Your task to perform on an android device: Check the settings for the Spotify app Image 0: 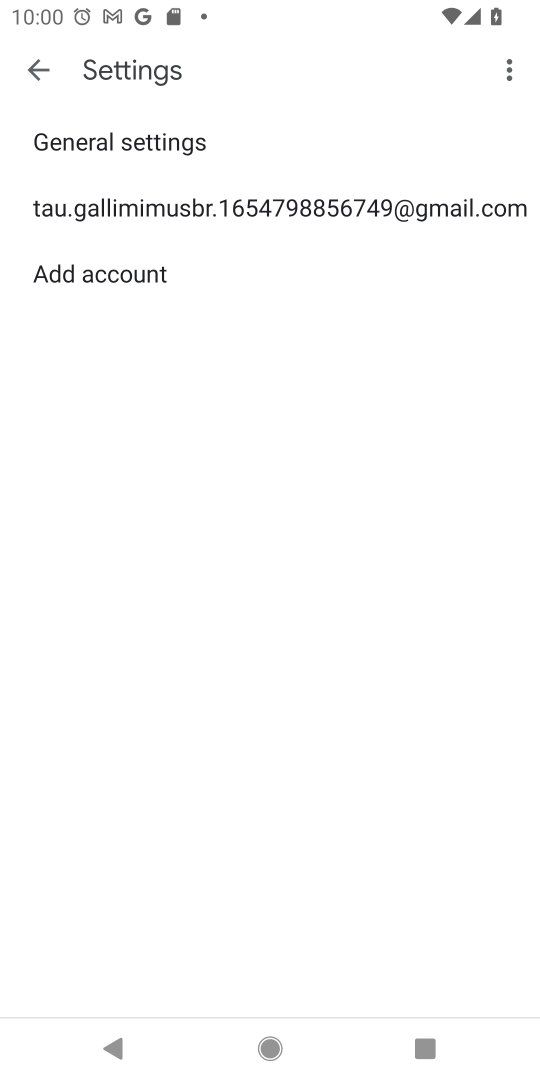
Step 0: press home button
Your task to perform on an android device: Check the settings for the Spotify app Image 1: 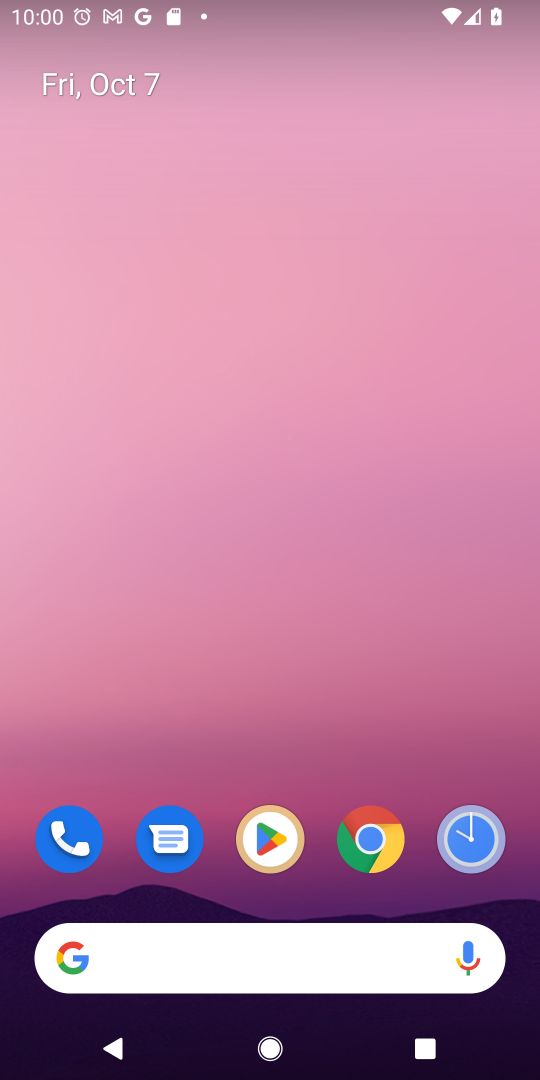
Step 1: click (379, 817)
Your task to perform on an android device: Check the settings for the Spotify app Image 2: 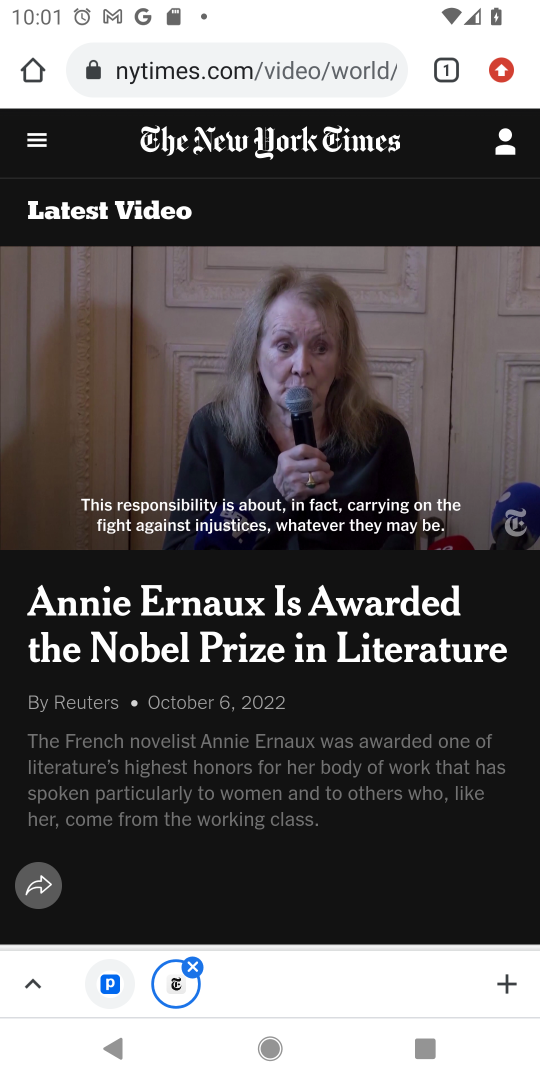
Step 2: press home button
Your task to perform on an android device: Check the settings for the Spotify app Image 3: 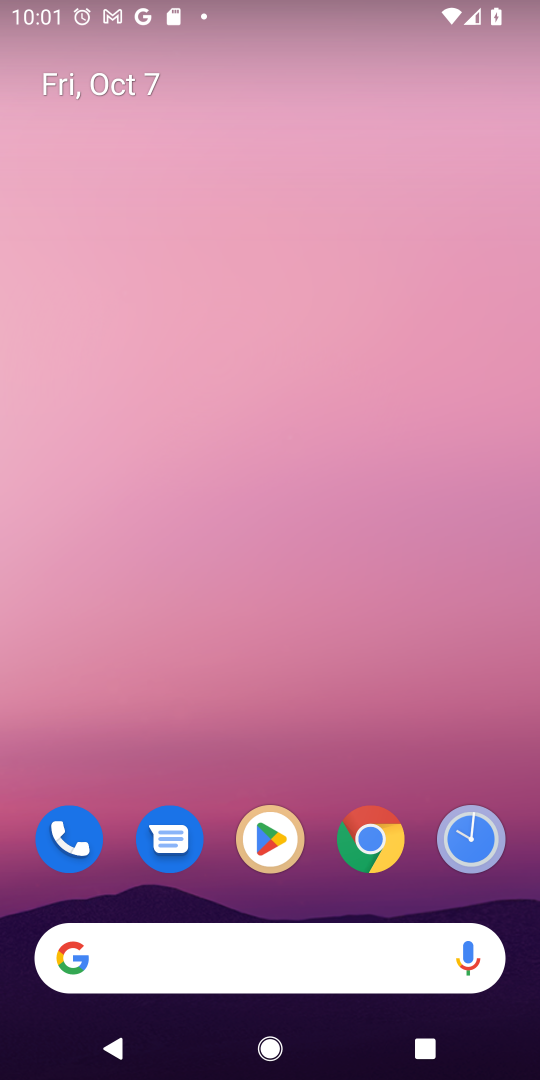
Step 3: click (377, 832)
Your task to perform on an android device: Check the settings for the Spotify app Image 4: 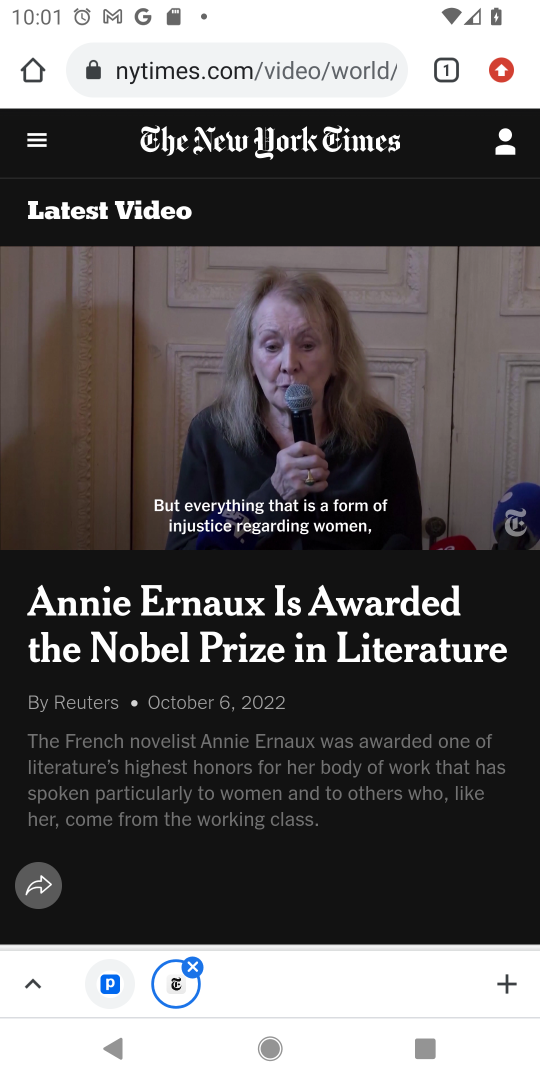
Step 4: press home button
Your task to perform on an android device: Check the settings for the Spotify app Image 5: 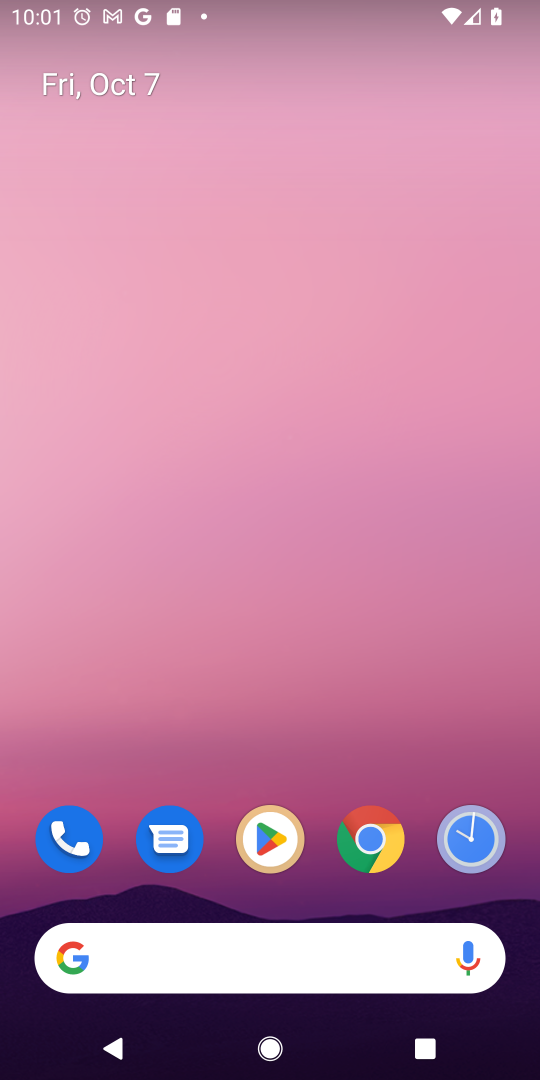
Step 5: click (385, 836)
Your task to perform on an android device: Check the settings for the Spotify app Image 6: 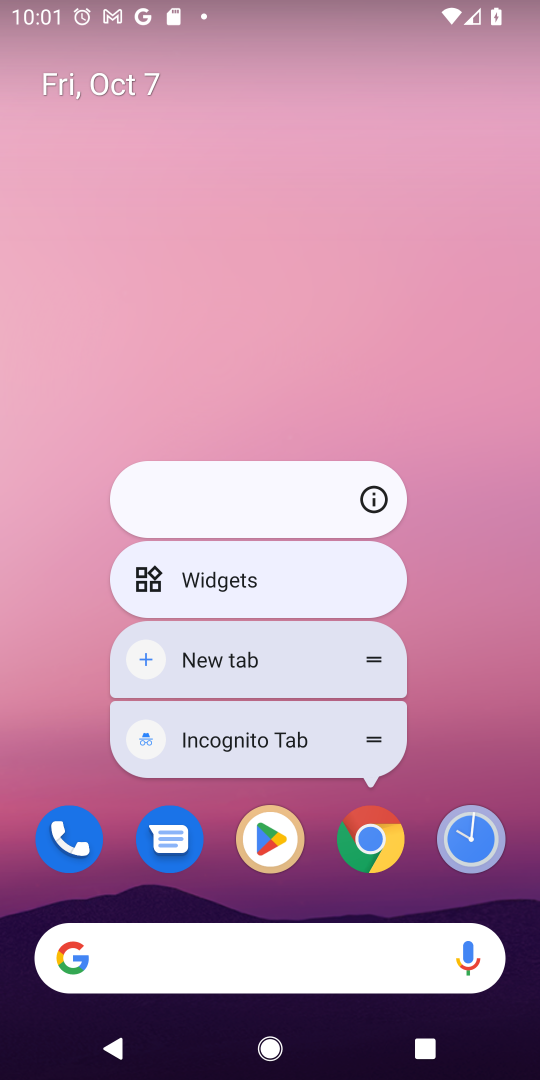
Step 6: press home button
Your task to perform on an android device: Check the settings for the Spotify app Image 7: 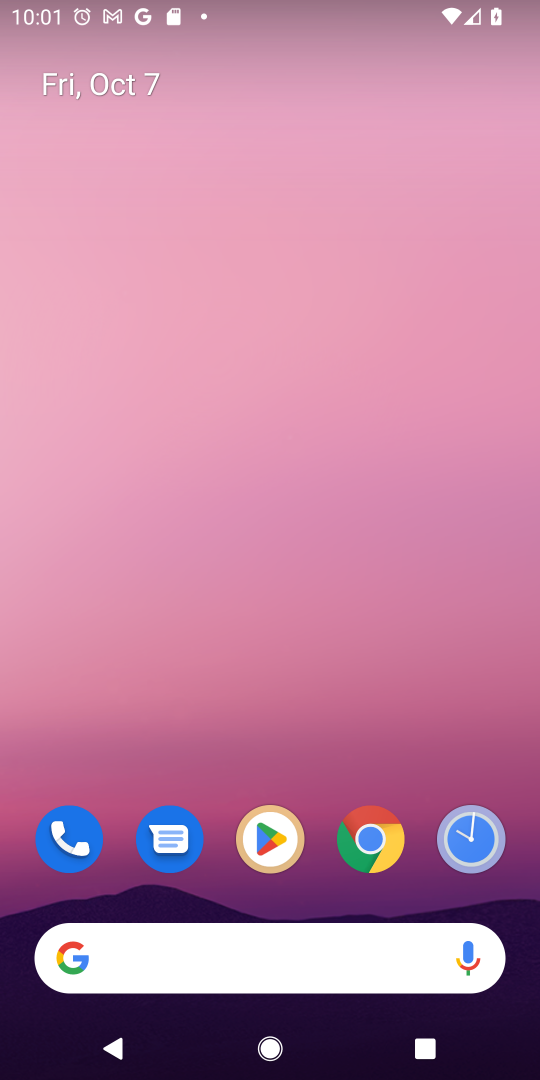
Step 7: click (379, 834)
Your task to perform on an android device: Check the settings for the Spotify app Image 8: 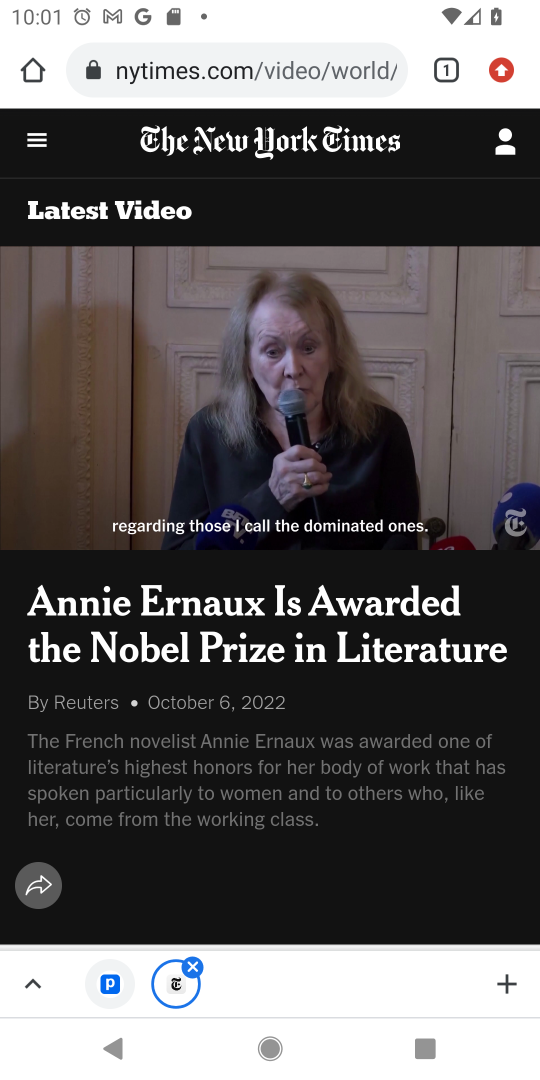
Step 8: click (279, 60)
Your task to perform on an android device: Check the settings for the Spotify app Image 9: 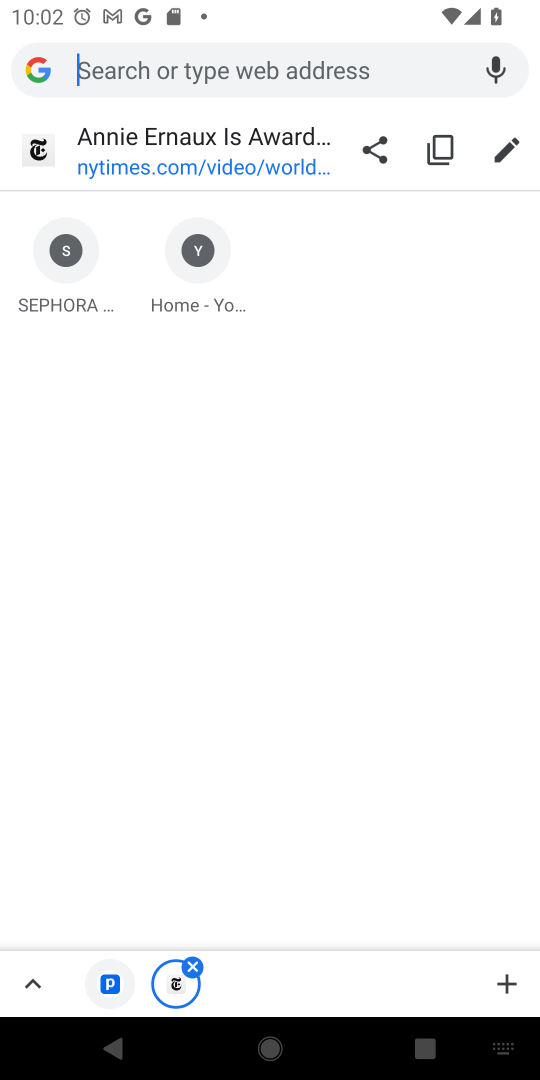
Step 9: type "spotify app"
Your task to perform on an android device: Check the settings for the Spotify app Image 10: 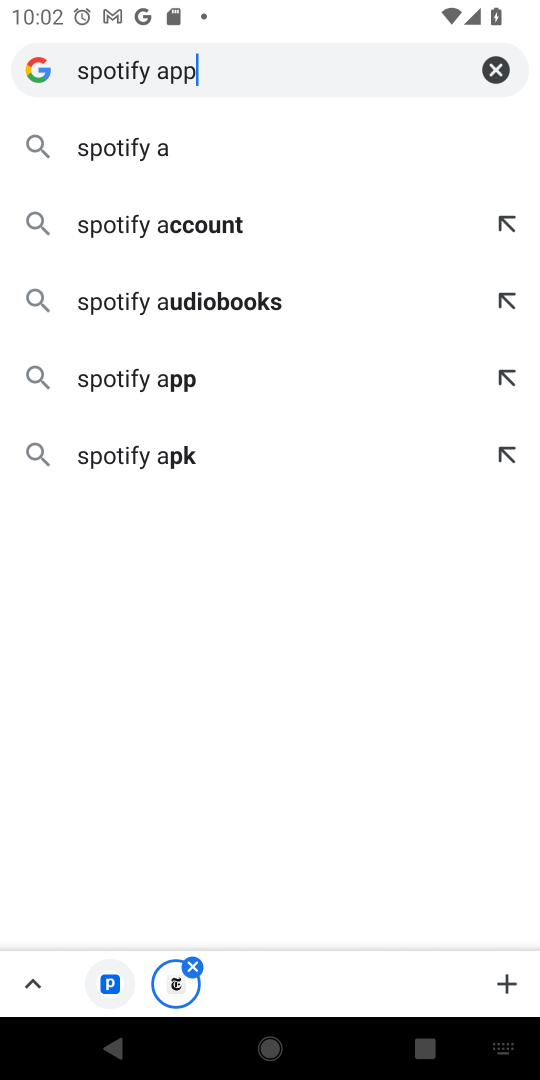
Step 10: type ""
Your task to perform on an android device: Check the settings for the Spotify app Image 11: 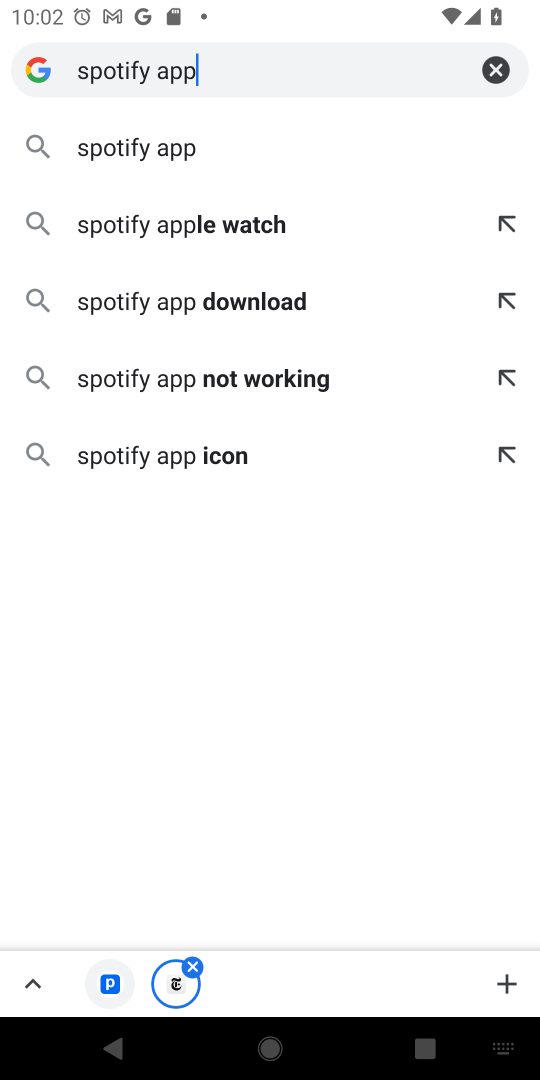
Step 11: click (183, 145)
Your task to perform on an android device: Check the settings for the Spotify app Image 12: 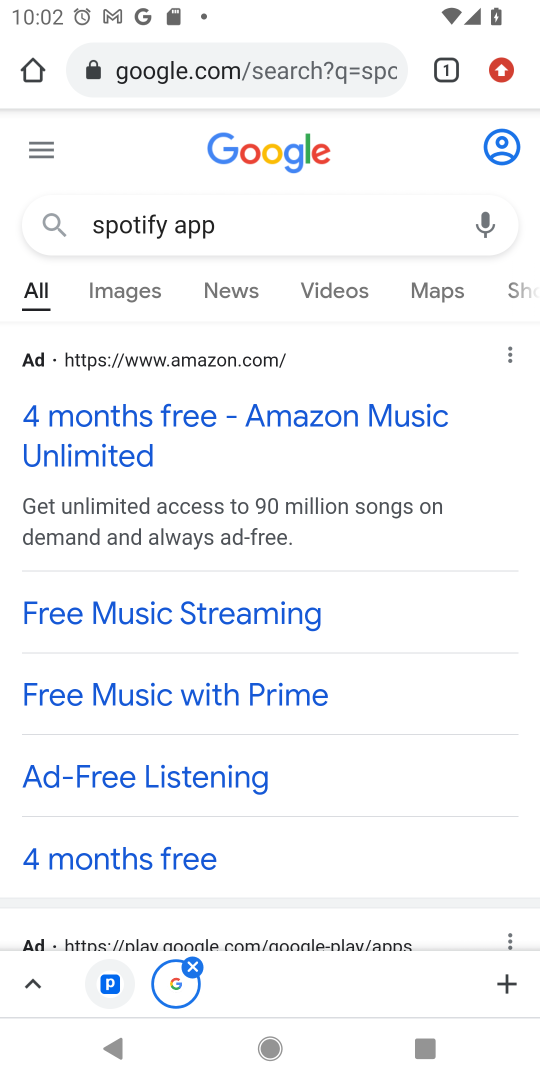
Step 12: drag from (254, 819) to (385, 326)
Your task to perform on an android device: Check the settings for the Spotify app Image 13: 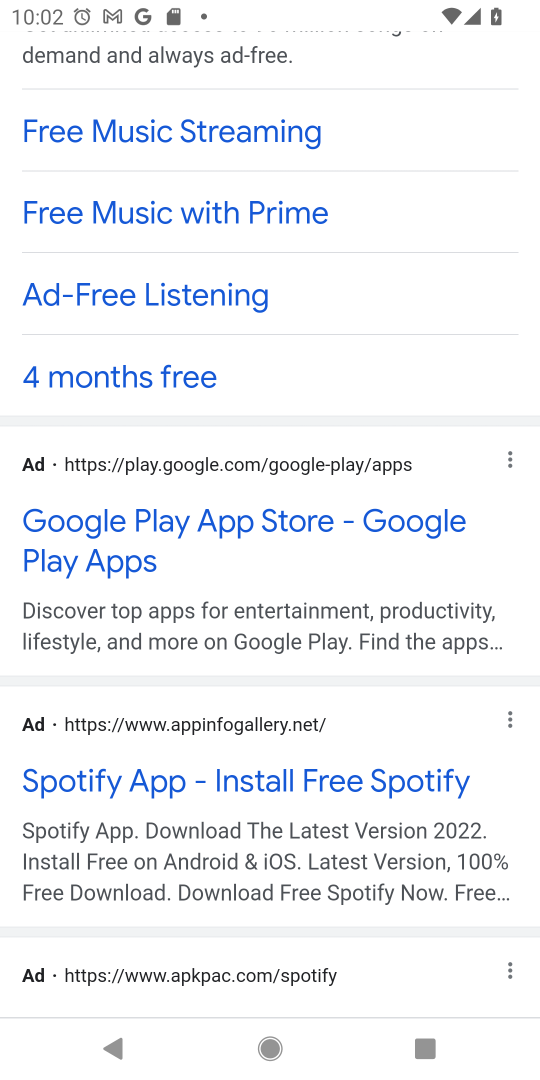
Step 13: click (85, 778)
Your task to perform on an android device: Check the settings for the Spotify app Image 14: 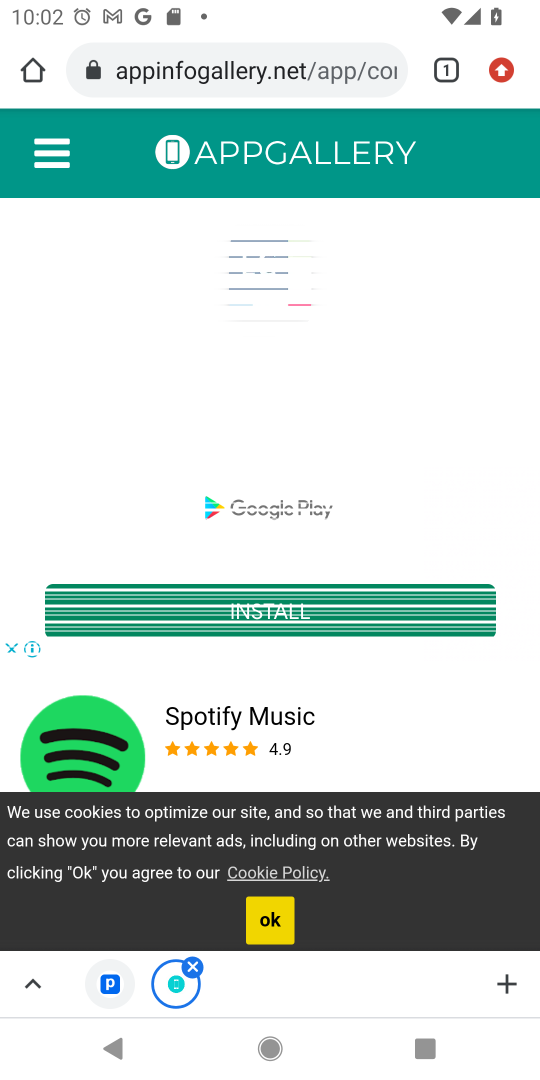
Step 14: click (269, 922)
Your task to perform on an android device: Check the settings for the Spotify app Image 15: 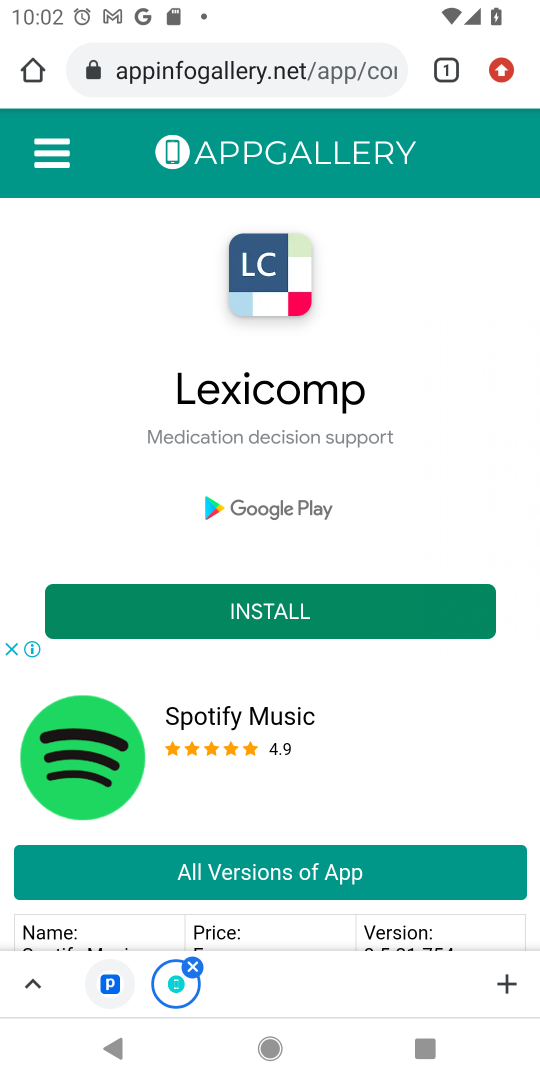
Step 15: click (68, 773)
Your task to perform on an android device: Check the settings for the Spotify app Image 16: 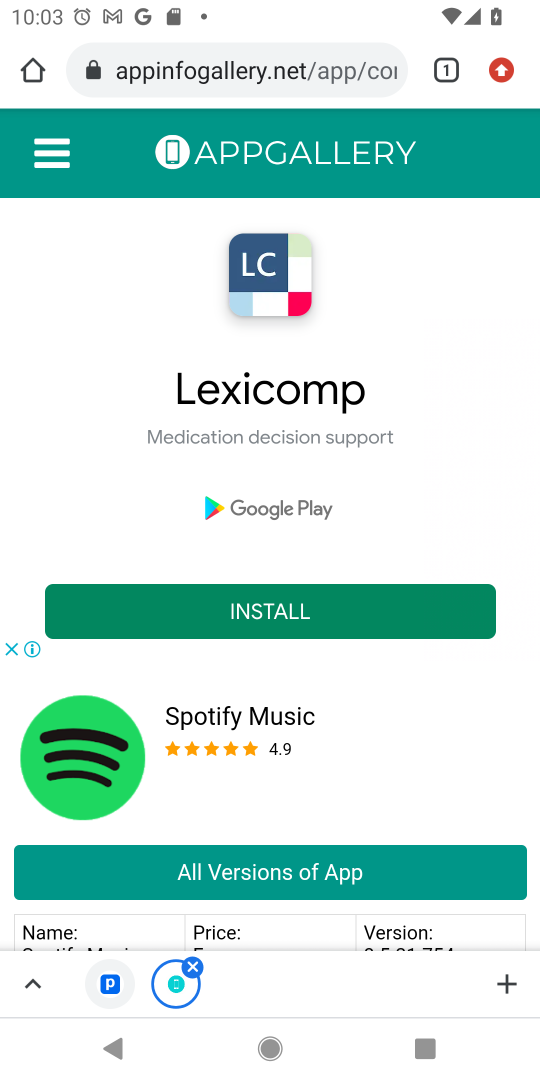
Step 16: drag from (246, 749) to (270, 443)
Your task to perform on an android device: Check the settings for the Spotify app Image 17: 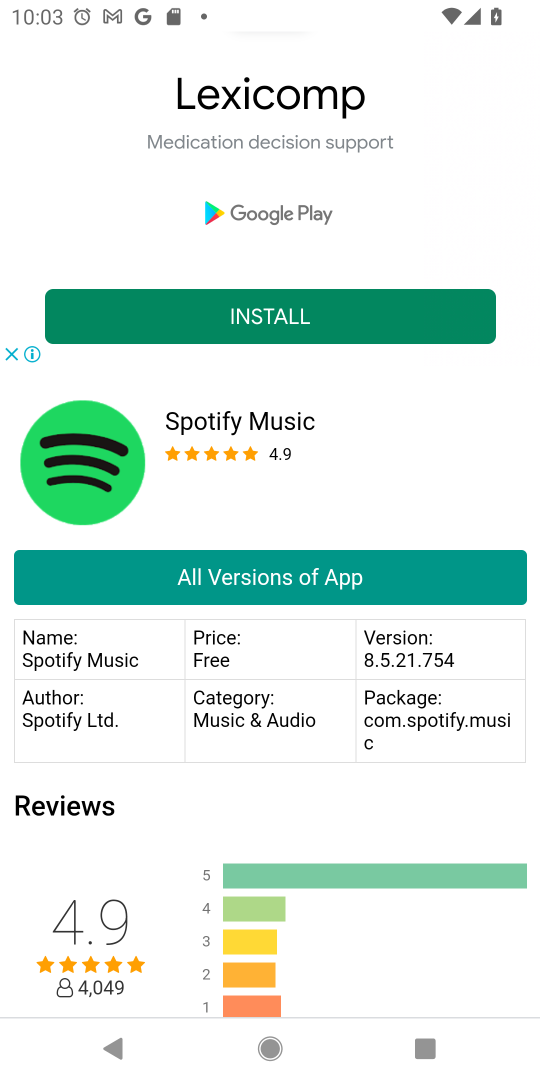
Step 17: drag from (118, 857) to (174, 563)
Your task to perform on an android device: Check the settings for the Spotify app Image 18: 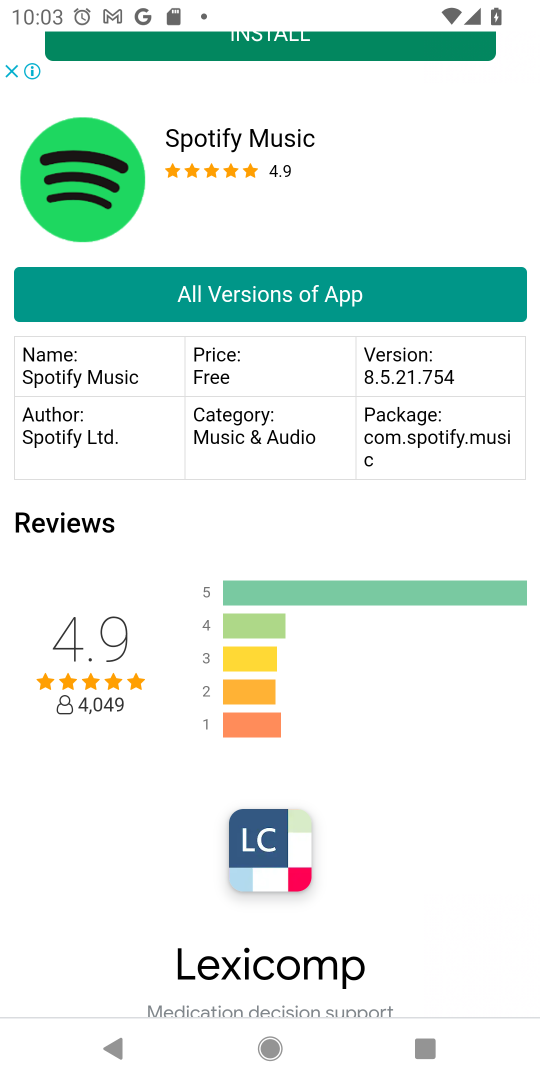
Step 18: drag from (97, 842) to (199, 576)
Your task to perform on an android device: Check the settings for the Spotify app Image 19: 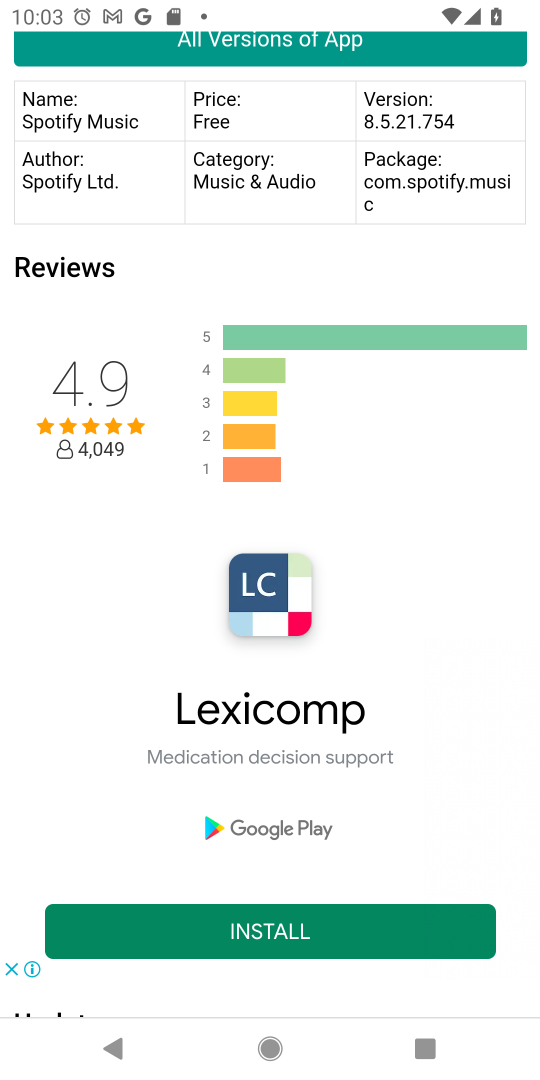
Step 19: drag from (409, 710) to (426, 456)
Your task to perform on an android device: Check the settings for the Spotify app Image 20: 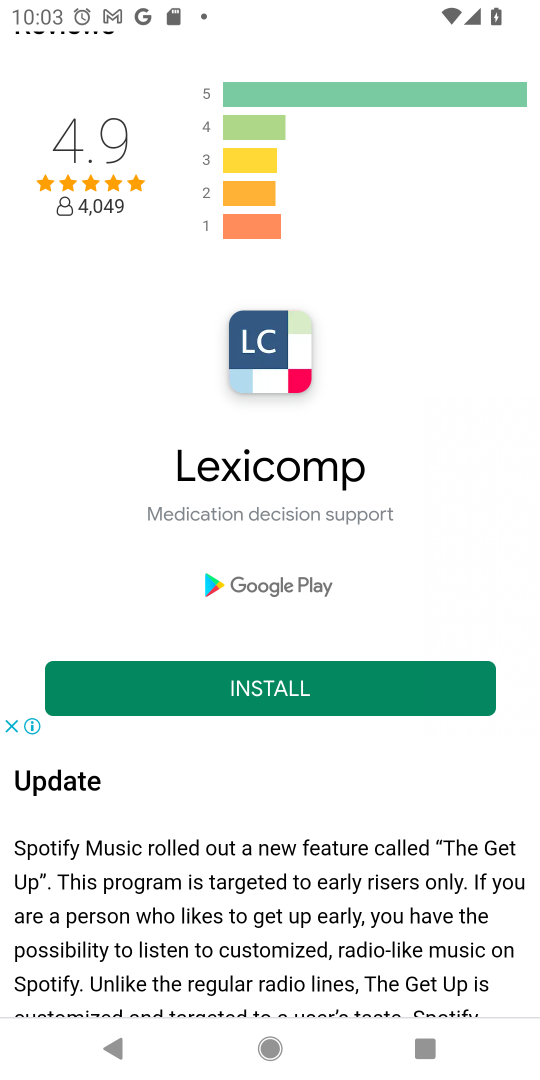
Step 20: drag from (224, 869) to (287, 489)
Your task to perform on an android device: Check the settings for the Spotify app Image 21: 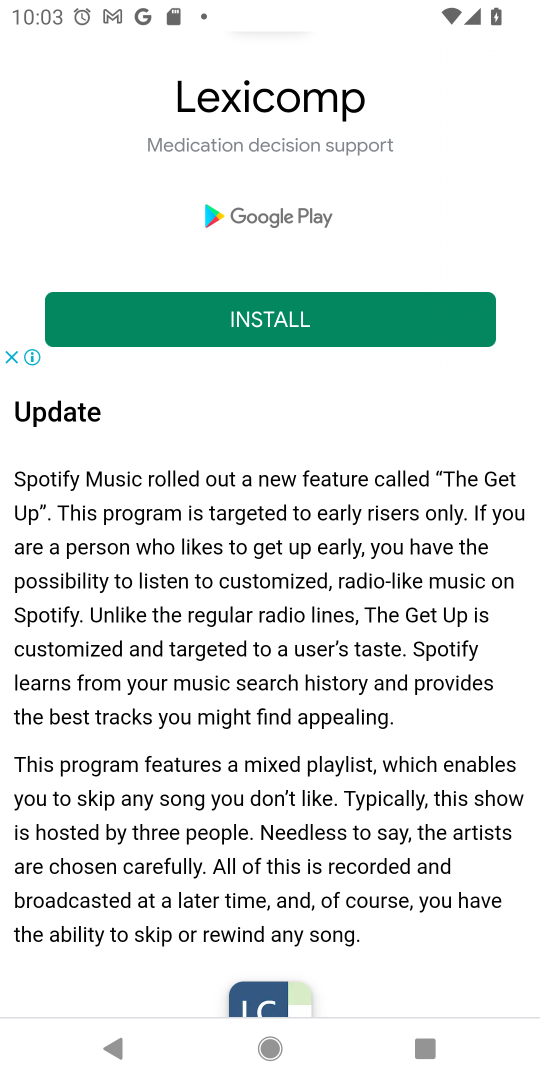
Step 21: drag from (269, 866) to (305, 540)
Your task to perform on an android device: Check the settings for the Spotify app Image 22: 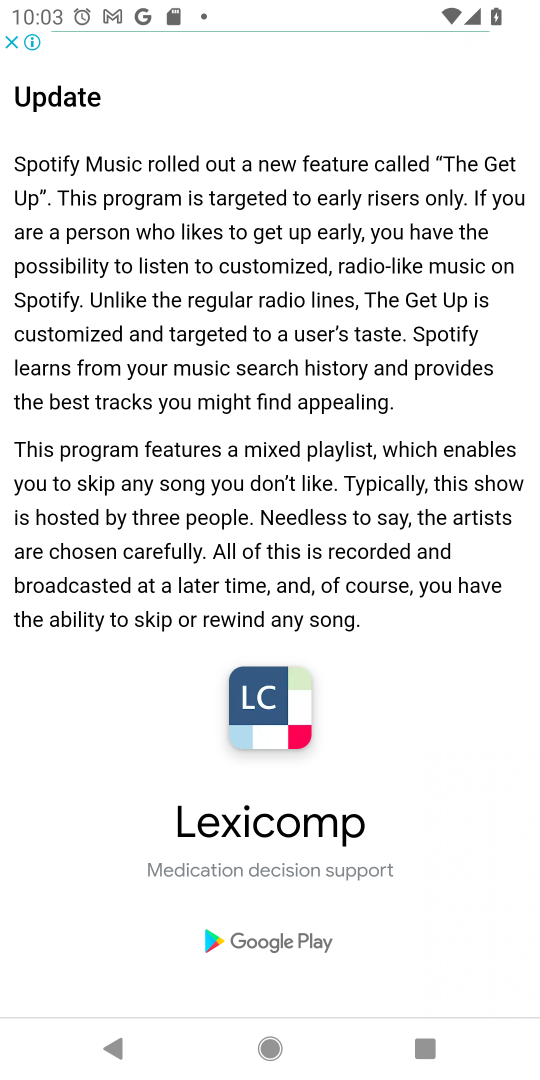
Step 22: drag from (329, 340) to (415, 969)
Your task to perform on an android device: Check the settings for the Spotify app Image 23: 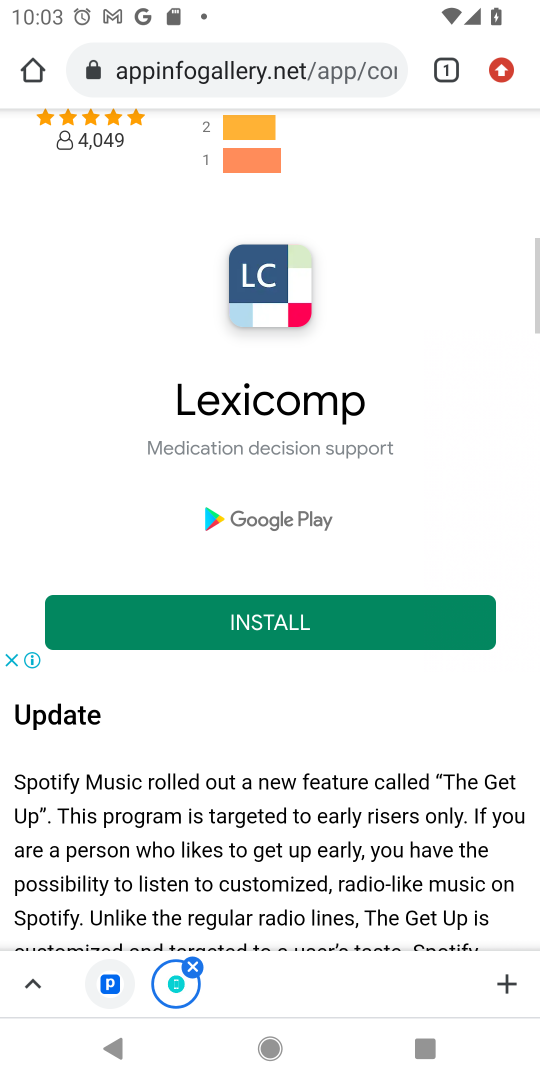
Step 23: drag from (314, 423) to (285, 1077)
Your task to perform on an android device: Check the settings for the Spotify app Image 24: 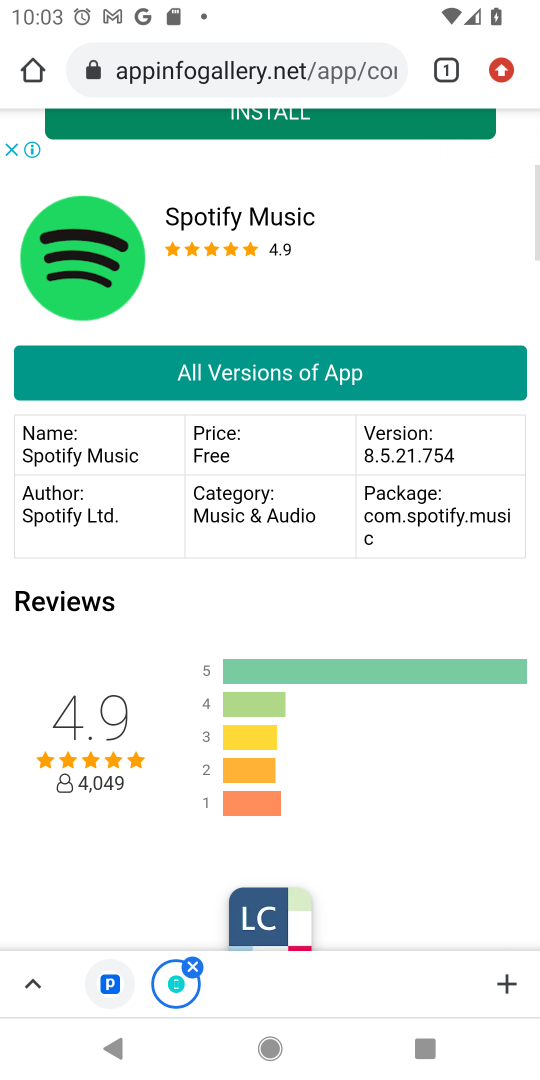
Step 24: drag from (196, 367) to (162, 844)
Your task to perform on an android device: Check the settings for the Spotify app Image 25: 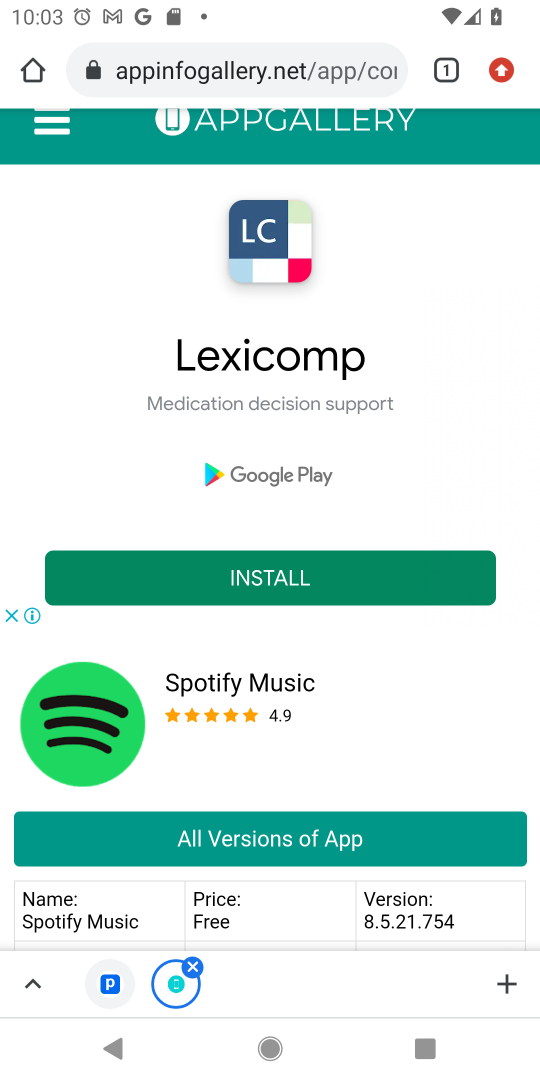
Step 25: click (109, 722)
Your task to perform on an android device: Check the settings for the Spotify app Image 26: 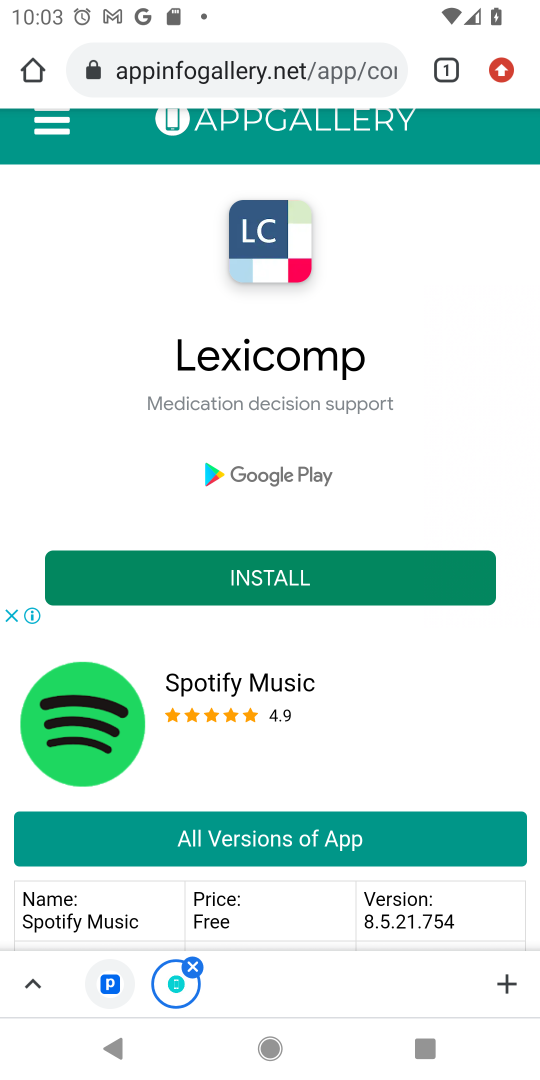
Step 26: click (95, 714)
Your task to perform on an android device: Check the settings for the Spotify app Image 27: 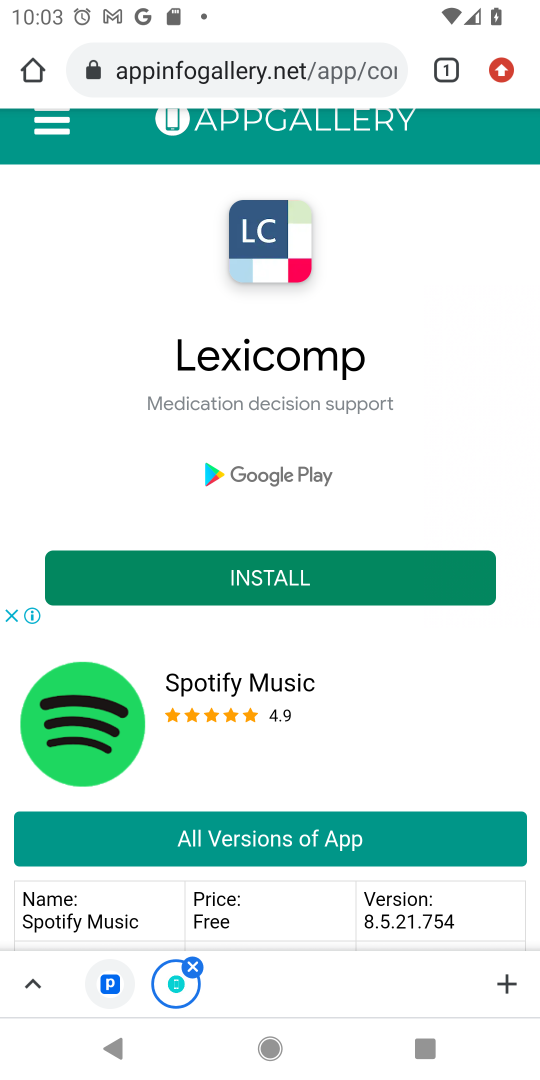
Step 27: click (297, 845)
Your task to perform on an android device: Check the settings for the Spotify app Image 28: 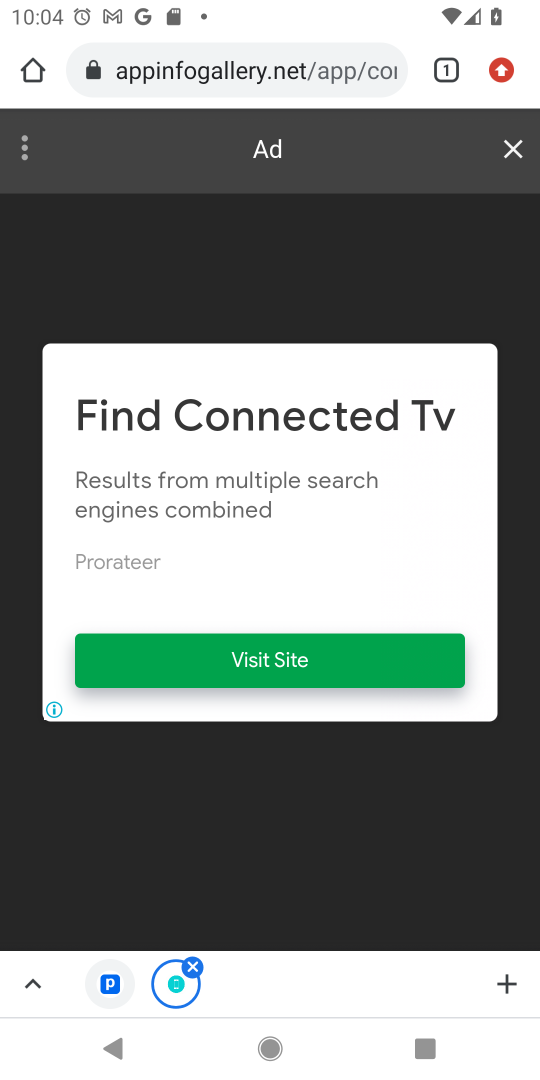
Step 28: click (287, 658)
Your task to perform on an android device: Check the settings for the Spotify app Image 29: 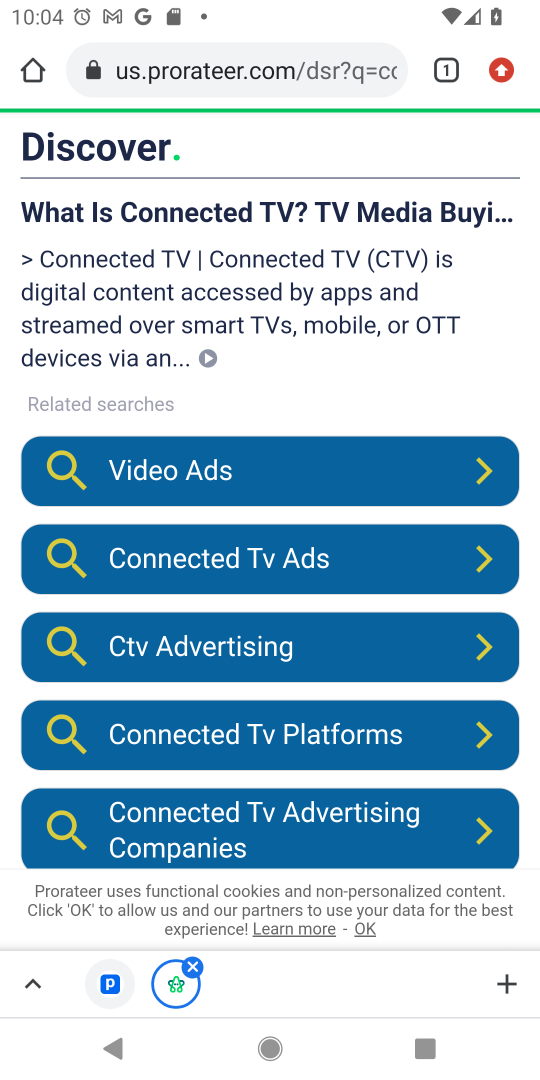
Step 29: click (313, 66)
Your task to perform on an android device: Check the settings for the Spotify app Image 30: 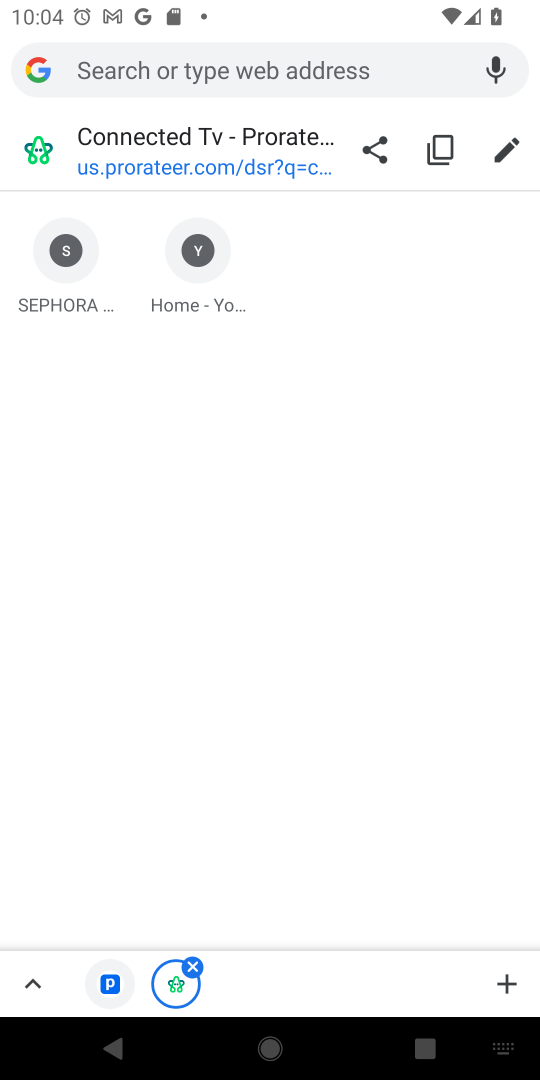
Step 30: type "spotify app"
Your task to perform on an android device: Check the settings for the Spotify app Image 31: 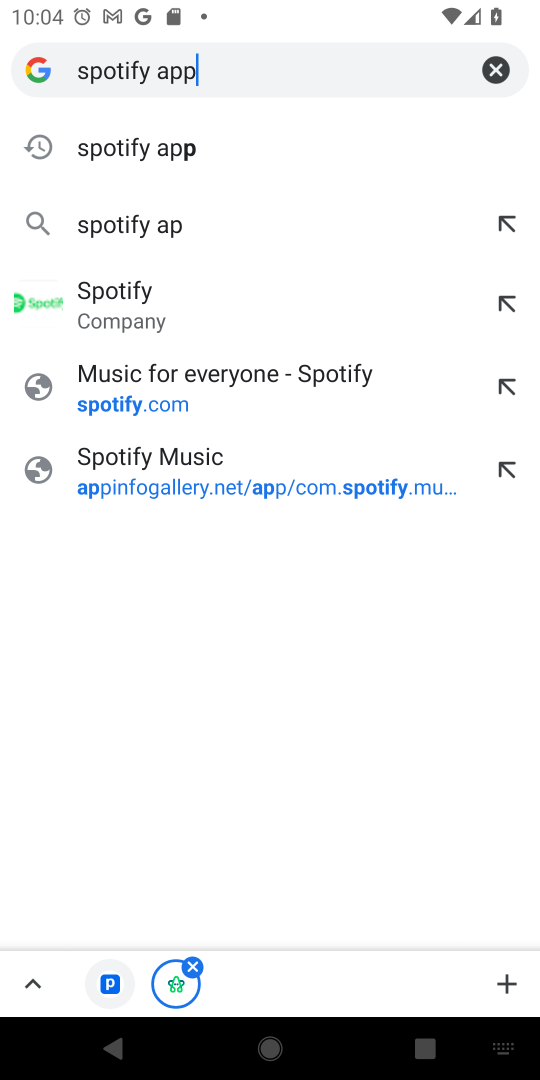
Step 31: type ""
Your task to perform on an android device: Check the settings for the Spotify app Image 32: 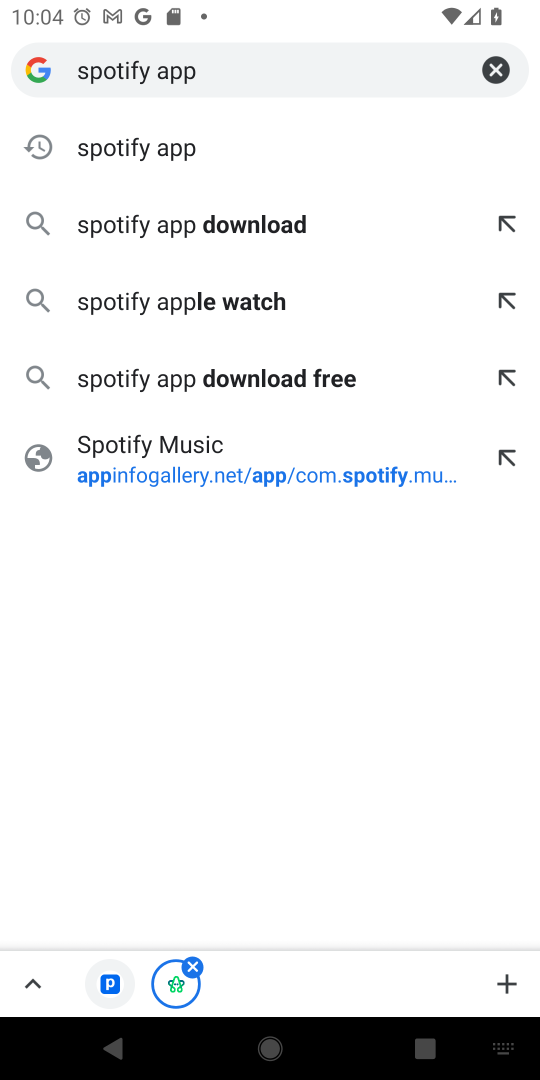
Step 32: click (242, 220)
Your task to perform on an android device: Check the settings for the Spotify app Image 33: 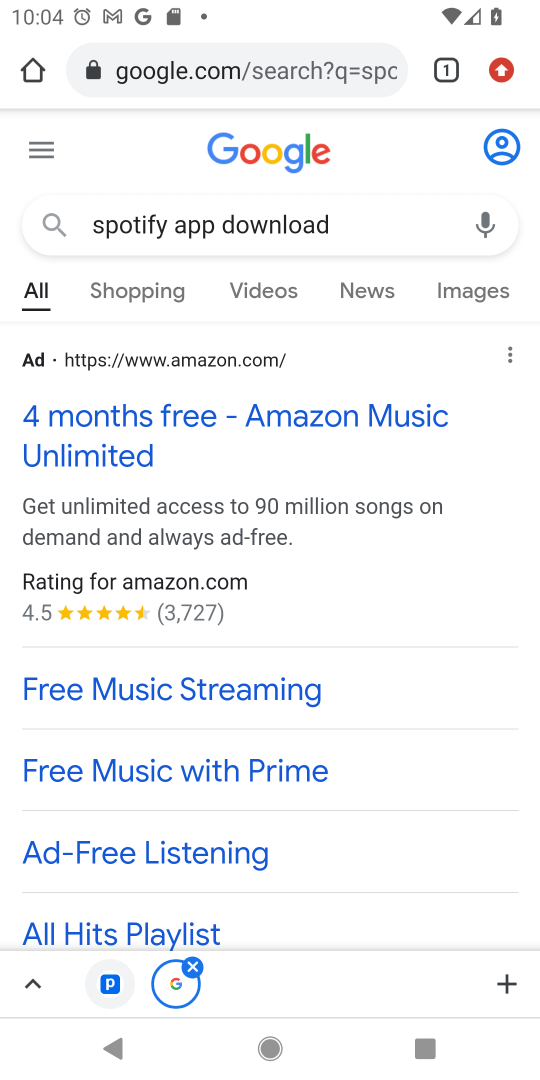
Step 33: drag from (189, 843) to (347, 471)
Your task to perform on an android device: Check the settings for the Spotify app Image 34: 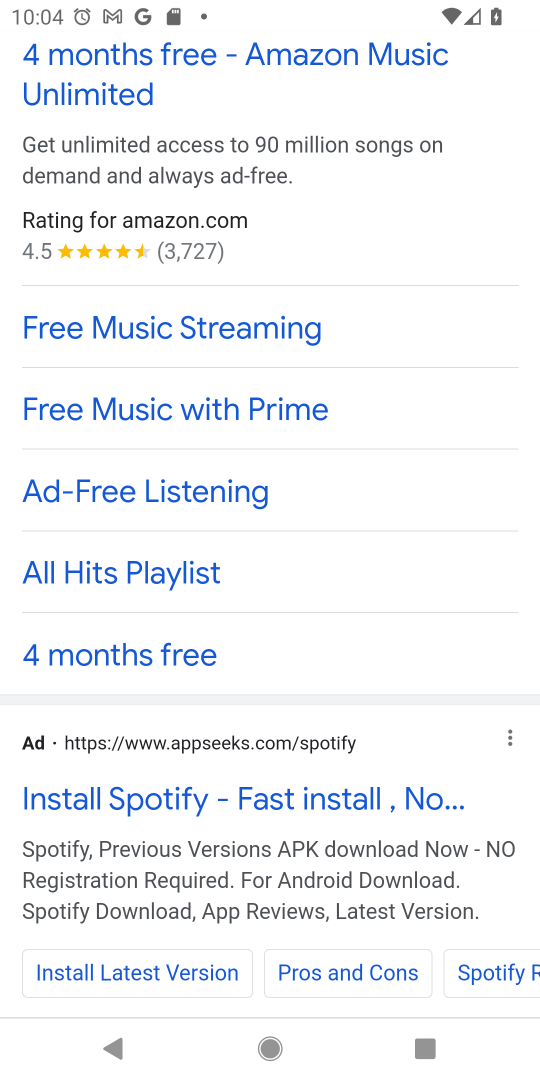
Step 34: click (162, 795)
Your task to perform on an android device: Check the settings for the Spotify app Image 35: 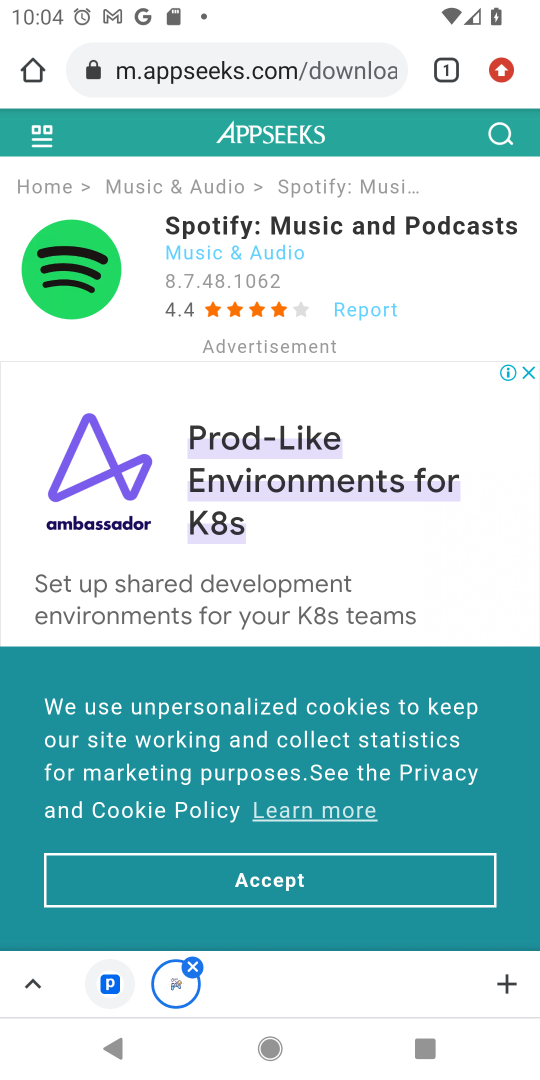
Step 35: drag from (263, 632) to (350, 387)
Your task to perform on an android device: Check the settings for the Spotify app Image 36: 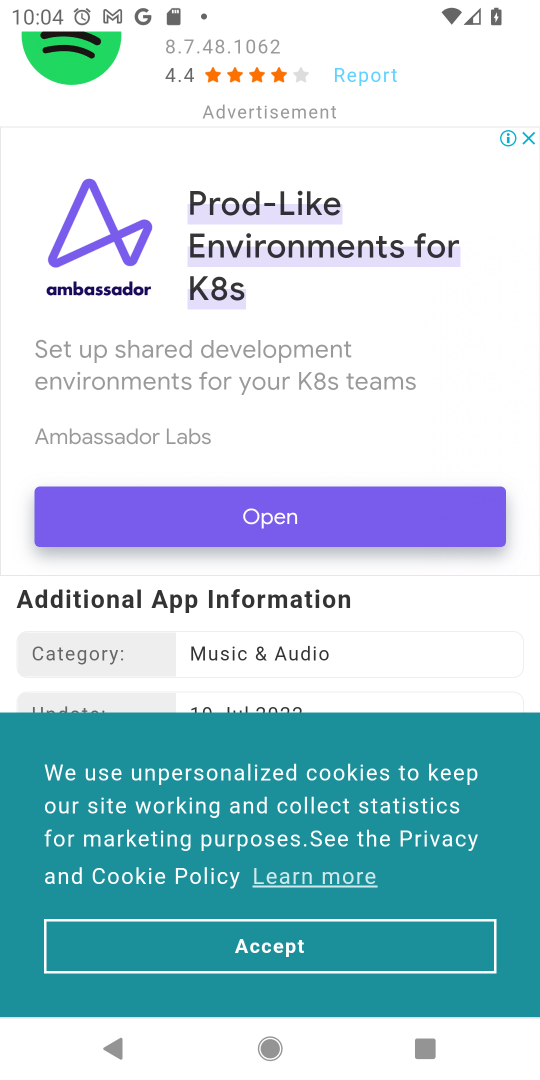
Step 36: drag from (269, 645) to (351, 409)
Your task to perform on an android device: Check the settings for the Spotify app Image 37: 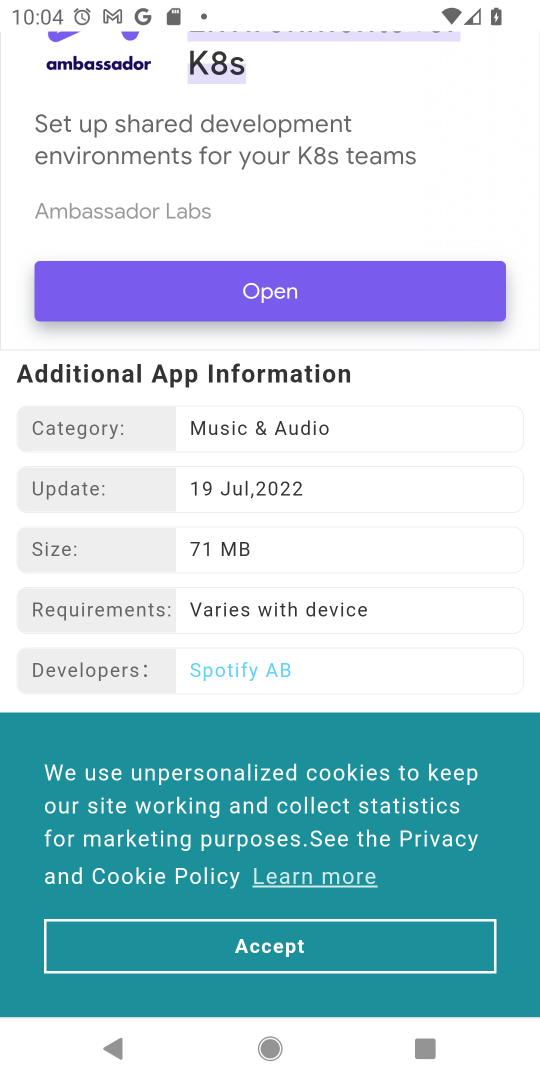
Step 37: click (305, 949)
Your task to perform on an android device: Check the settings for the Spotify app Image 38: 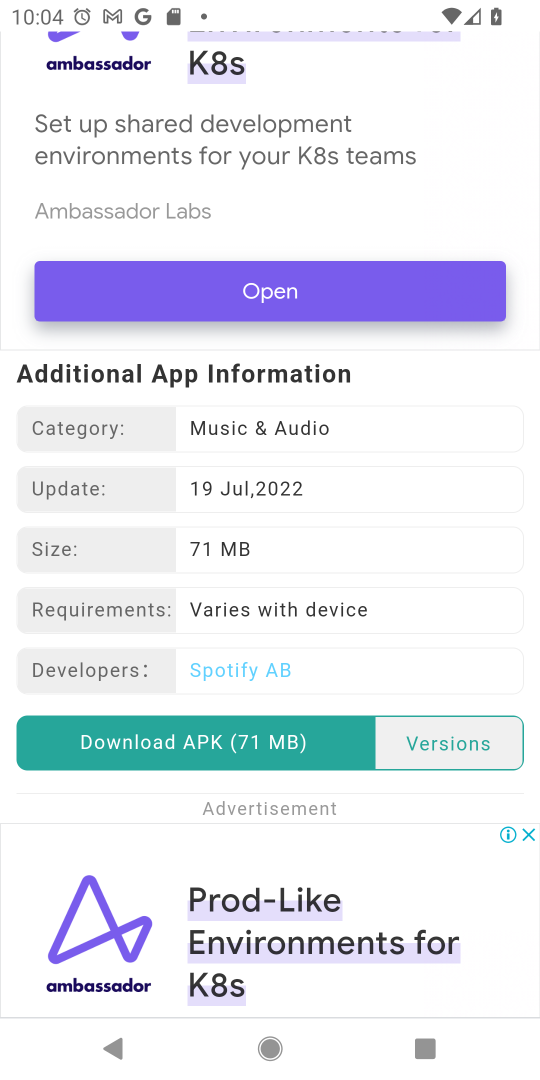
Step 38: task complete